Your task to perform on an android device: open device folders in google photos Image 0: 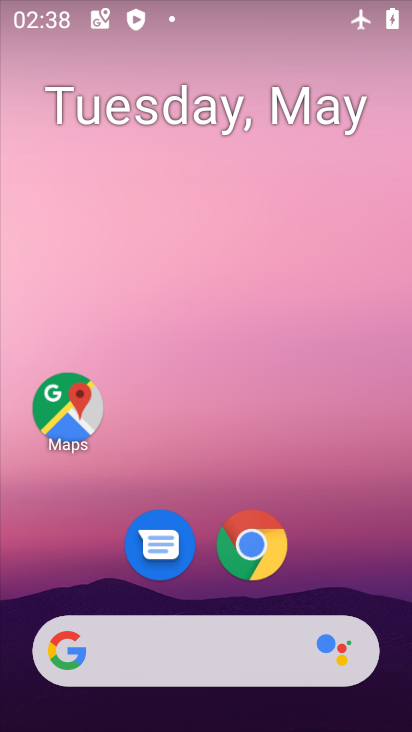
Step 0: drag from (379, 573) to (358, 85)
Your task to perform on an android device: open device folders in google photos Image 1: 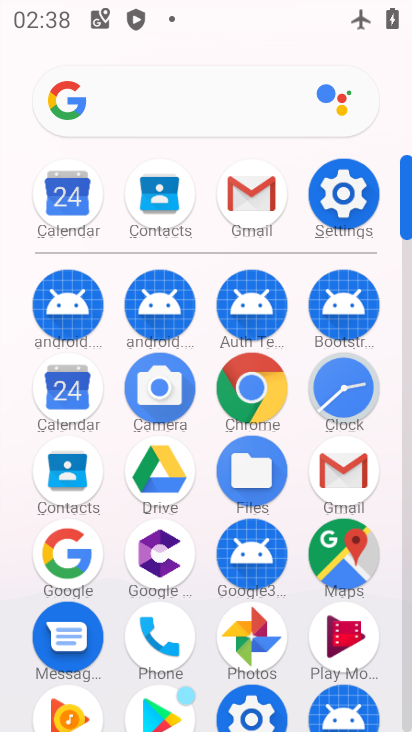
Step 1: click (406, 685)
Your task to perform on an android device: open device folders in google photos Image 2: 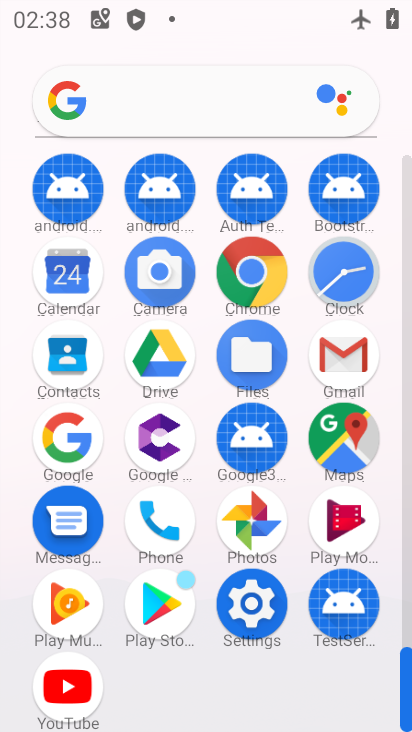
Step 2: click (249, 514)
Your task to perform on an android device: open device folders in google photos Image 3: 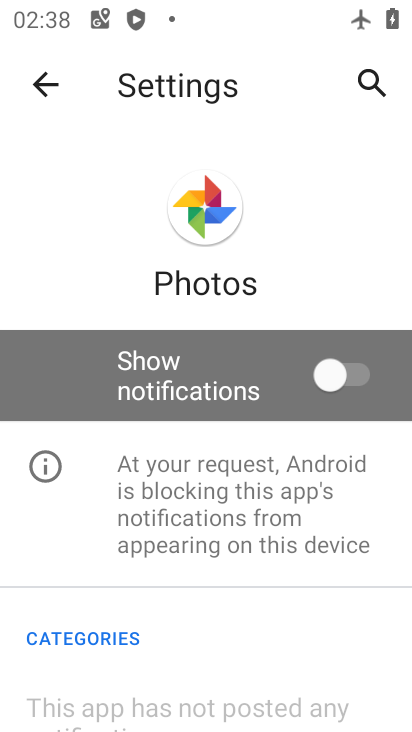
Step 3: press back button
Your task to perform on an android device: open device folders in google photos Image 4: 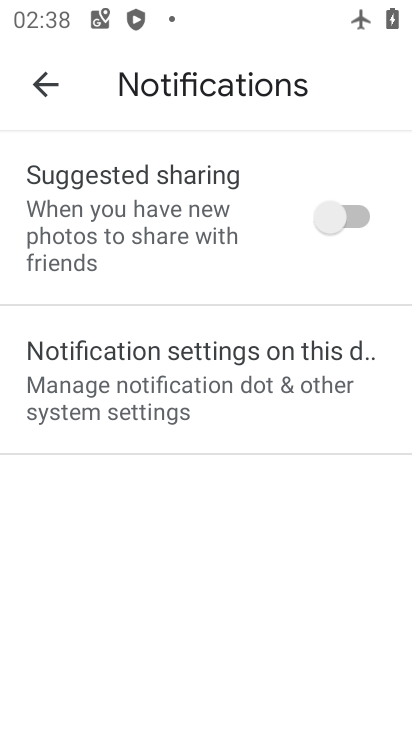
Step 4: press back button
Your task to perform on an android device: open device folders in google photos Image 5: 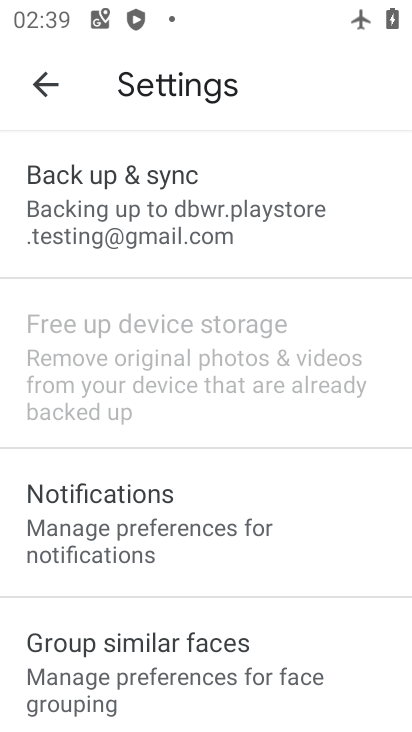
Step 5: press back button
Your task to perform on an android device: open device folders in google photos Image 6: 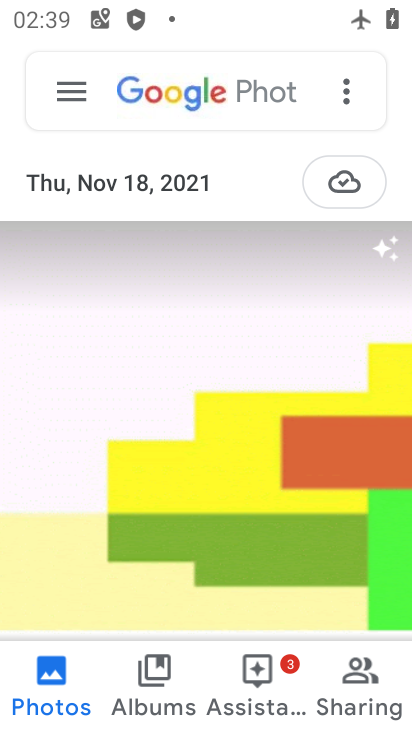
Step 6: click (63, 87)
Your task to perform on an android device: open device folders in google photos Image 7: 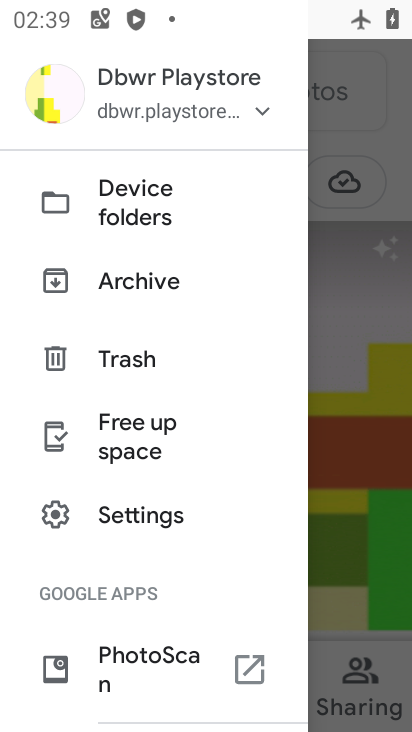
Step 7: click (124, 217)
Your task to perform on an android device: open device folders in google photos Image 8: 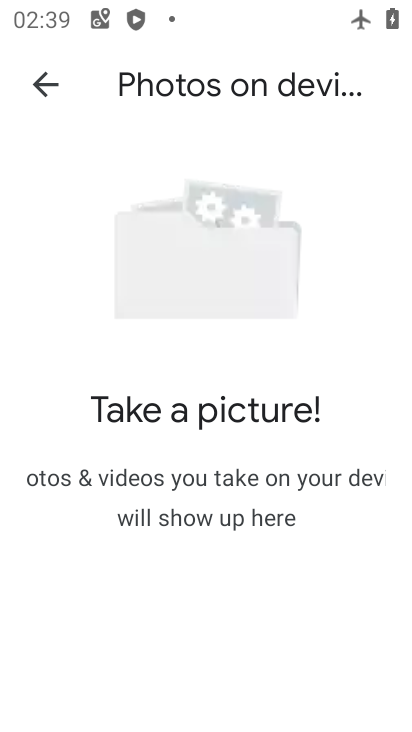
Step 8: task complete